Your task to perform on an android device: turn on the 24-hour format for clock Image 0: 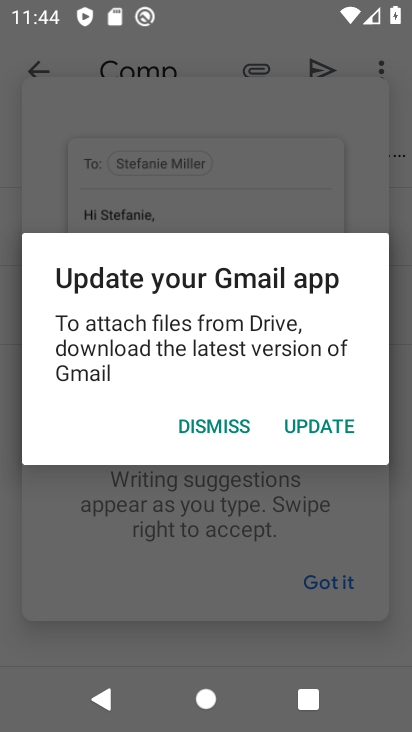
Step 0: press home button
Your task to perform on an android device: turn on the 24-hour format for clock Image 1: 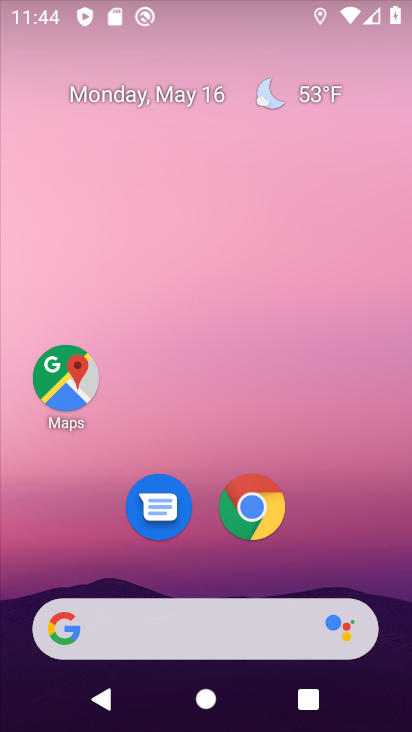
Step 1: drag from (255, 637) to (254, 180)
Your task to perform on an android device: turn on the 24-hour format for clock Image 2: 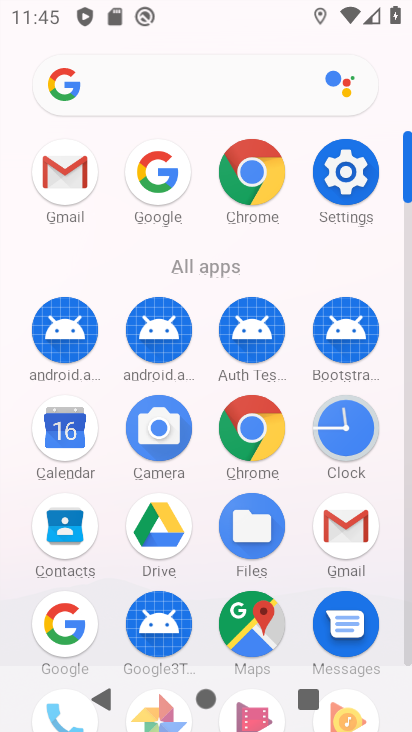
Step 2: click (347, 446)
Your task to perform on an android device: turn on the 24-hour format for clock Image 3: 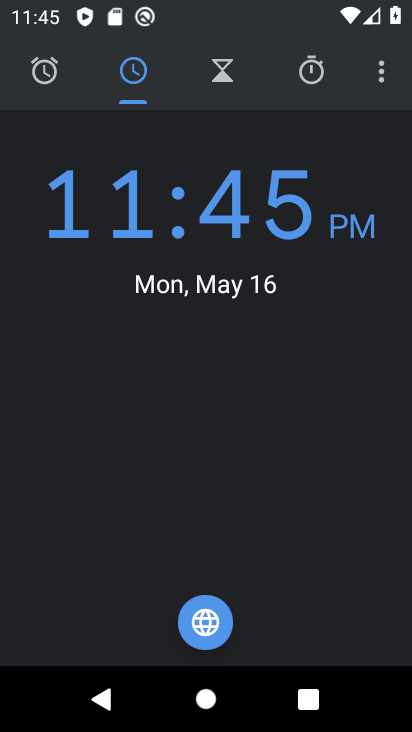
Step 3: click (383, 82)
Your task to perform on an android device: turn on the 24-hour format for clock Image 4: 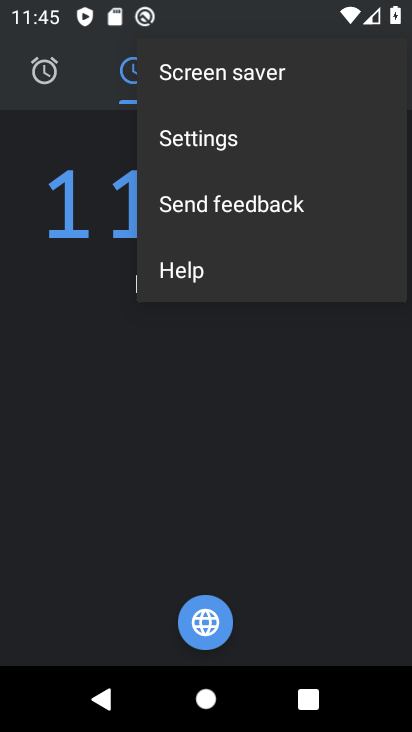
Step 4: click (236, 134)
Your task to perform on an android device: turn on the 24-hour format for clock Image 5: 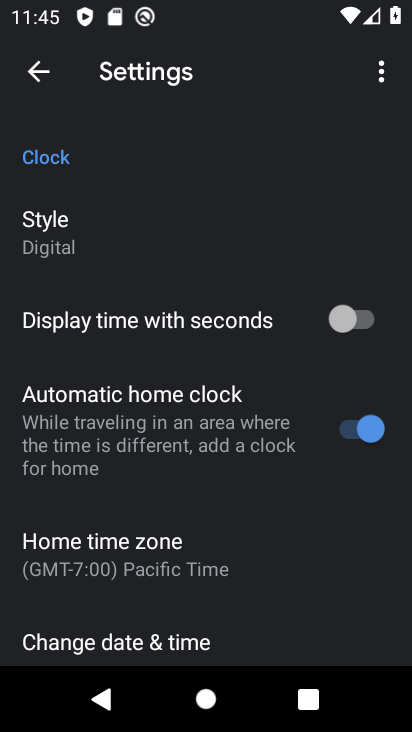
Step 5: click (150, 642)
Your task to perform on an android device: turn on the 24-hour format for clock Image 6: 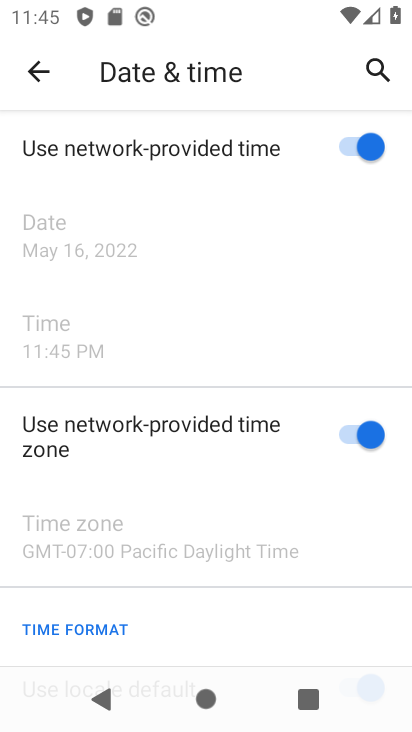
Step 6: task complete